Your task to perform on an android device: Clear all items from cart on walmart. Image 0: 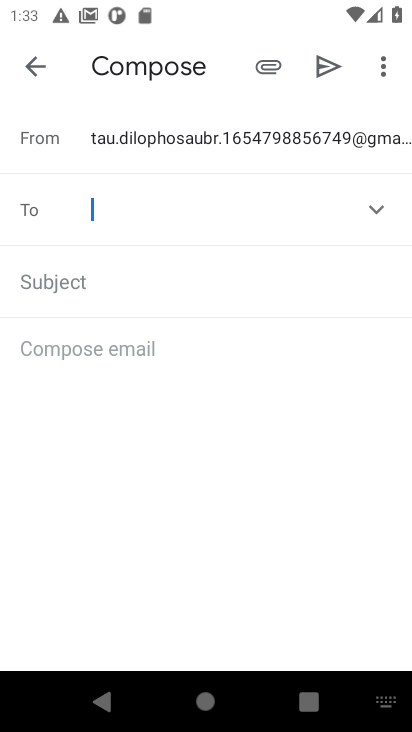
Step 0: press home button
Your task to perform on an android device: Clear all items from cart on walmart. Image 1: 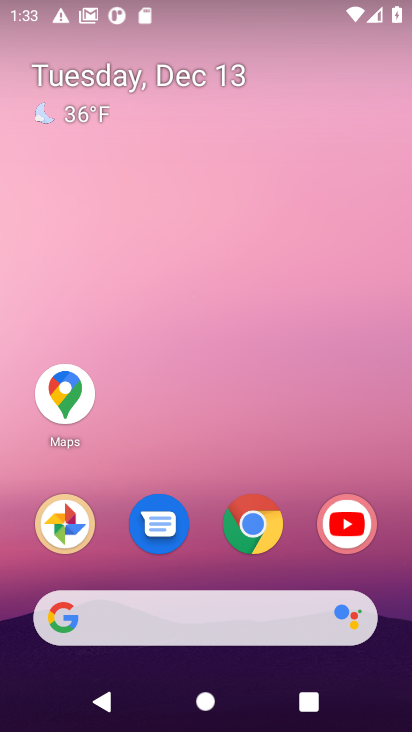
Step 1: click (257, 536)
Your task to perform on an android device: Clear all items from cart on walmart. Image 2: 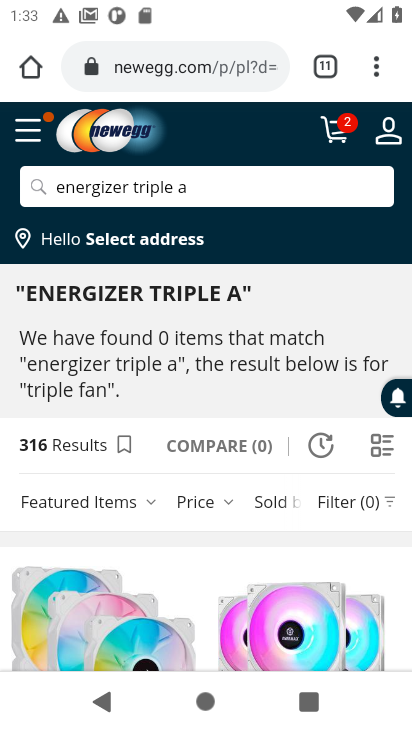
Step 2: click (175, 66)
Your task to perform on an android device: Clear all items from cart on walmart. Image 3: 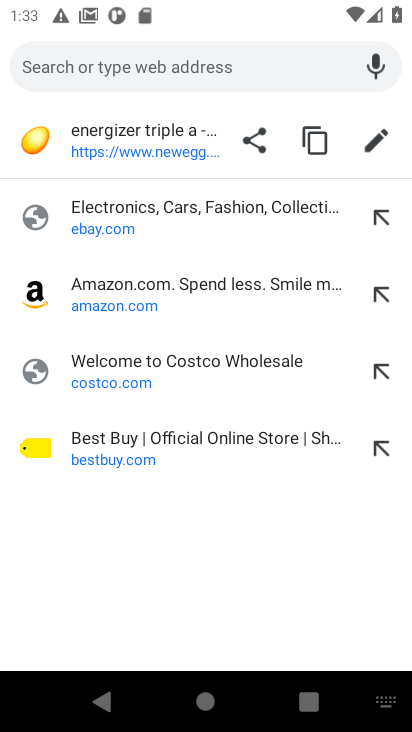
Step 3: type "walmart.com"
Your task to perform on an android device: Clear all items from cart on walmart. Image 4: 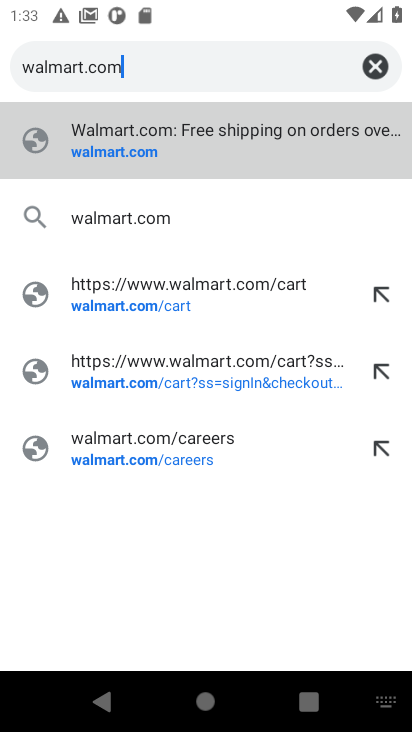
Step 4: click (98, 154)
Your task to perform on an android device: Clear all items from cart on walmart. Image 5: 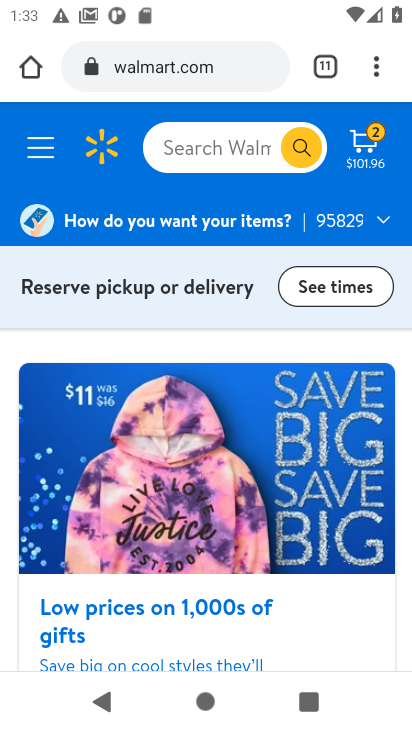
Step 5: click (373, 147)
Your task to perform on an android device: Clear all items from cart on walmart. Image 6: 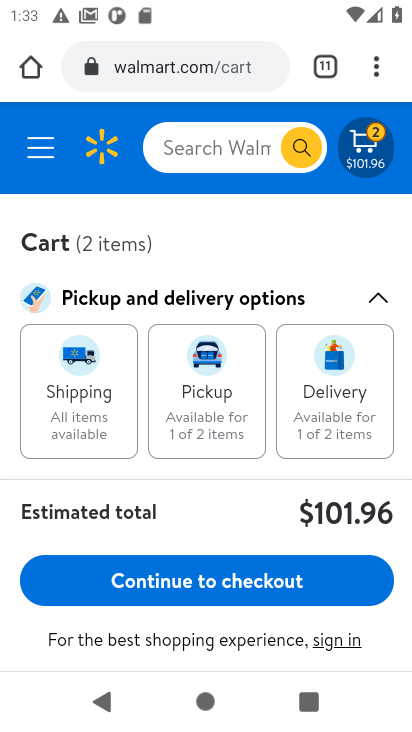
Step 6: drag from (248, 460) to (267, 215)
Your task to perform on an android device: Clear all items from cart on walmart. Image 7: 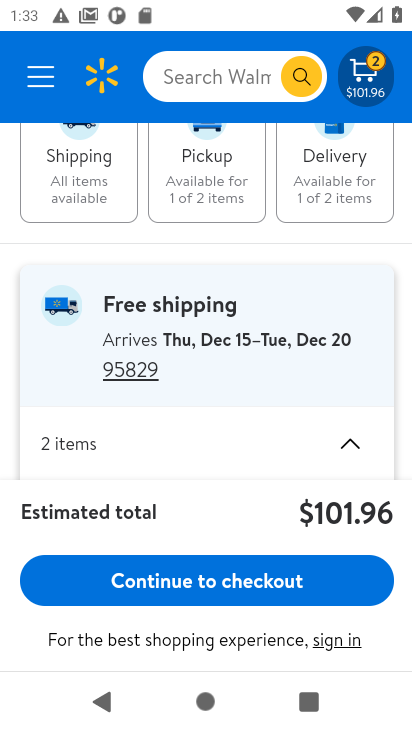
Step 7: drag from (213, 387) to (217, 151)
Your task to perform on an android device: Clear all items from cart on walmart. Image 8: 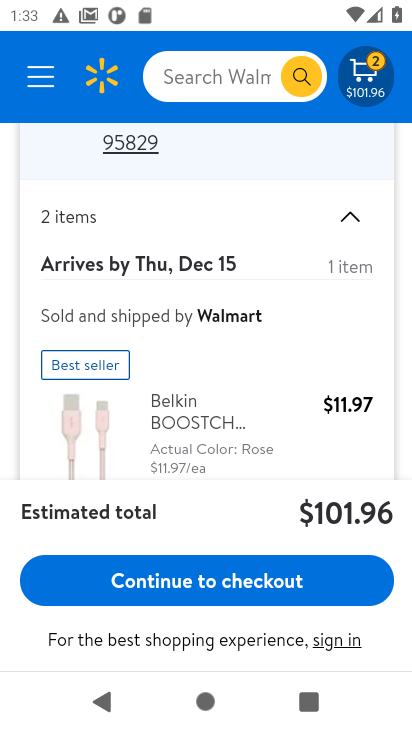
Step 8: drag from (179, 441) to (170, 159)
Your task to perform on an android device: Clear all items from cart on walmart. Image 9: 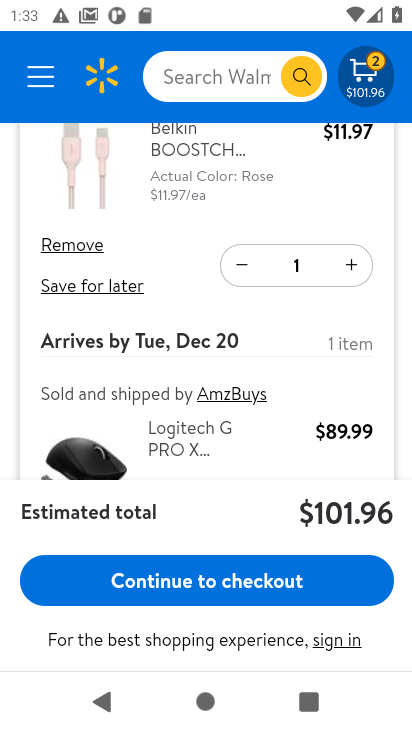
Step 9: drag from (148, 408) to (157, 111)
Your task to perform on an android device: Clear all items from cart on walmart. Image 10: 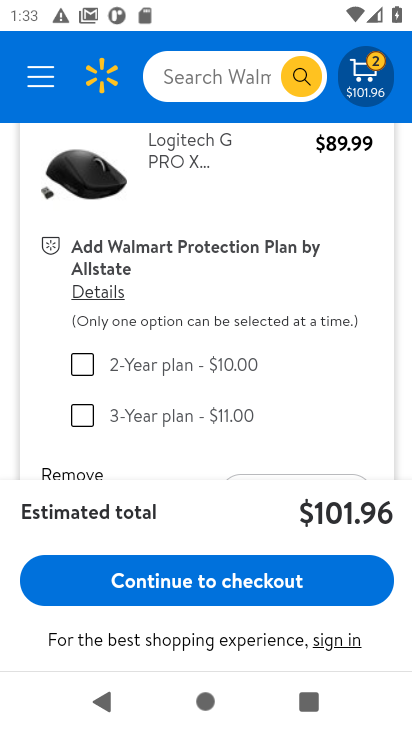
Step 10: drag from (154, 172) to (163, 458)
Your task to perform on an android device: Clear all items from cart on walmart. Image 11: 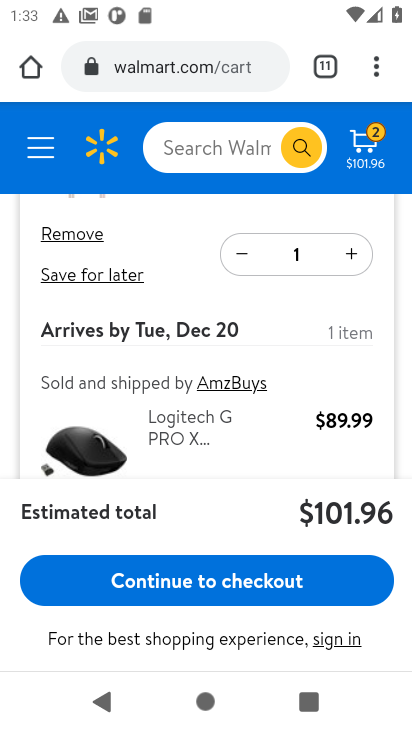
Step 11: click (74, 237)
Your task to perform on an android device: Clear all items from cart on walmart. Image 12: 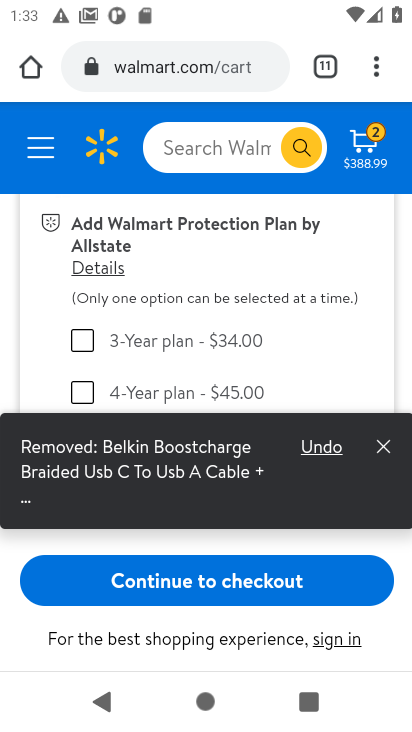
Step 12: click (390, 454)
Your task to perform on an android device: Clear all items from cart on walmart. Image 13: 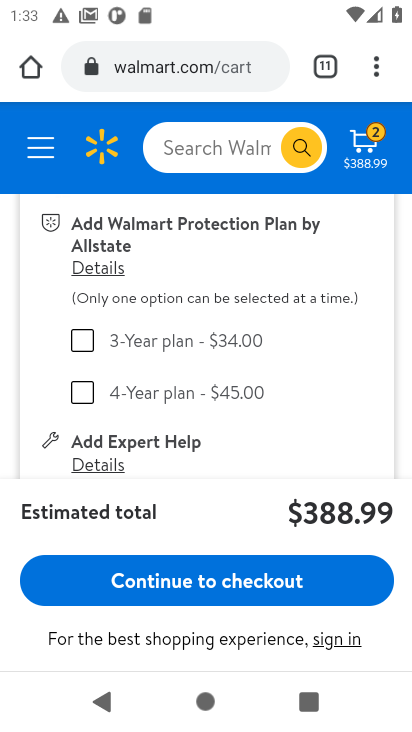
Step 13: drag from (153, 457) to (157, 264)
Your task to perform on an android device: Clear all items from cart on walmart. Image 14: 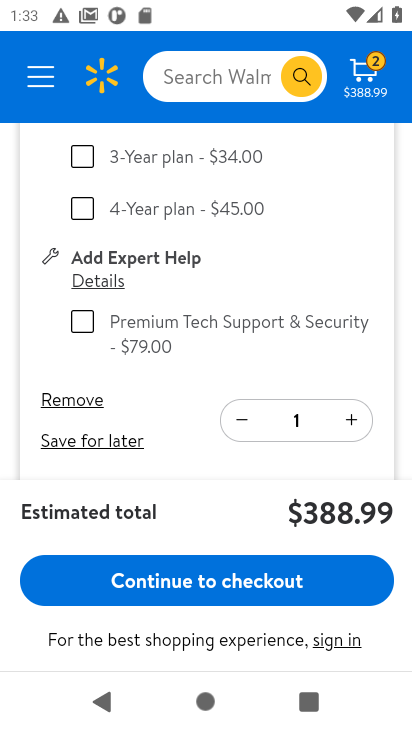
Step 14: click (61, 397)
Your task to perform on an android device: Clear all items from cart on walmart. Image 15: 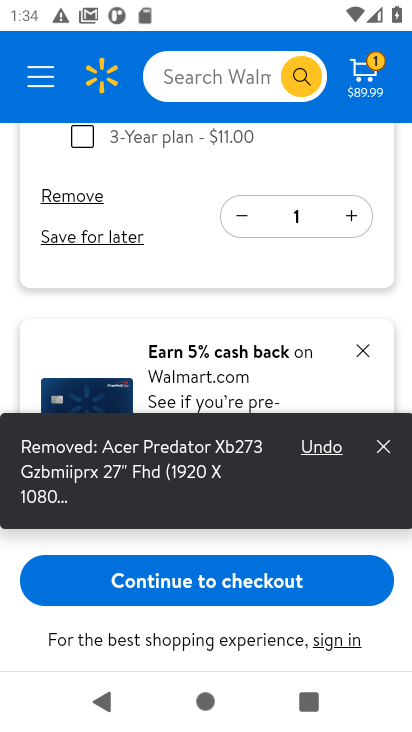
Step 15: click (66, 197)
Your task to perform on an android device: Clear all items from cart on walmart. Image 16: 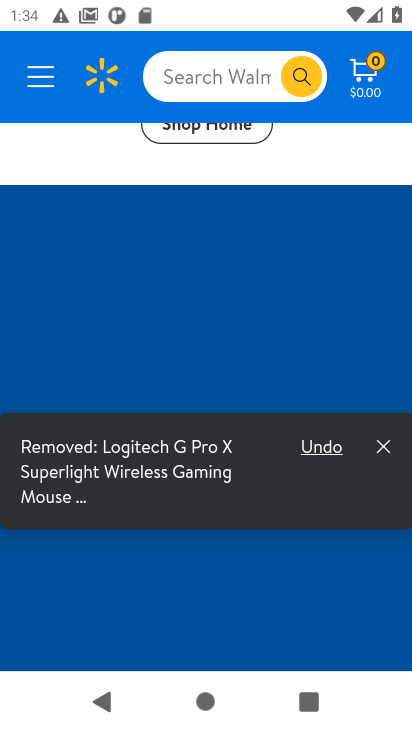
Step 16: task complete